Your task to perform on an android device: Open Youtube and go to the subscriptions tab Image 0: 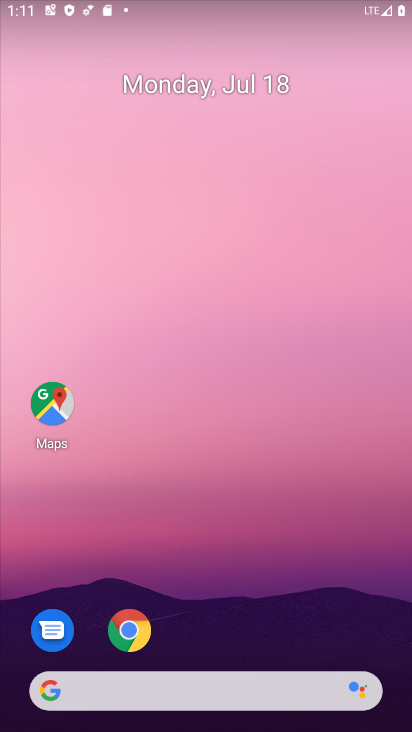
Step 0: drag from (269, 585) to (274, 47)
Your task to perform on an android device: Open Youtube and go to the subscriptions tab Image 1: 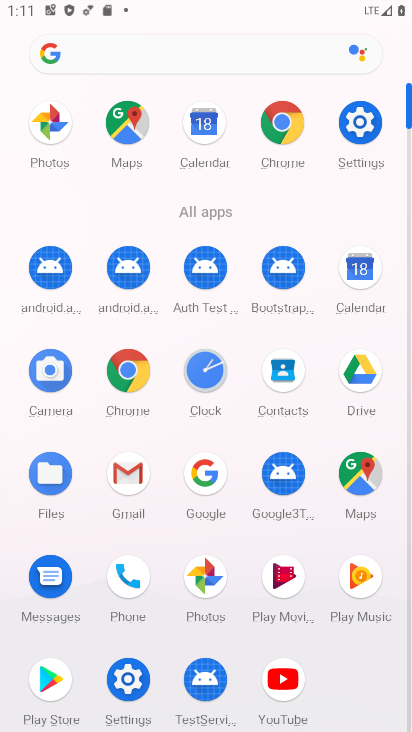
Step 1: click (290, 675)
Your task to perform on an android device: Open Youtube and go to the subscriptions tab Image 2: 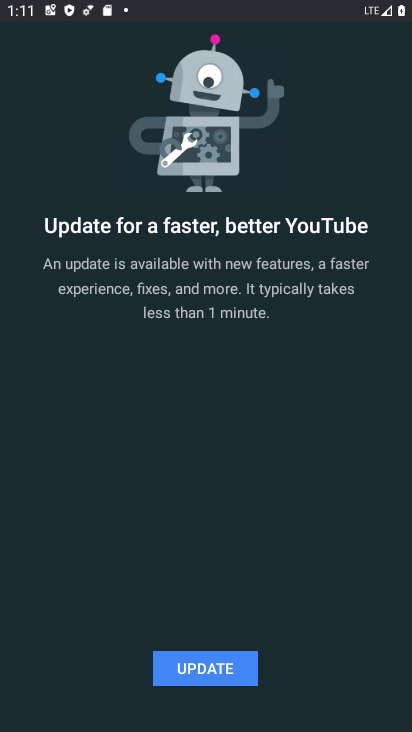
Step 2: click (254, 669)
Your task to perform on an android device: Open Youtube and go to the subscriptions tab Image 3: 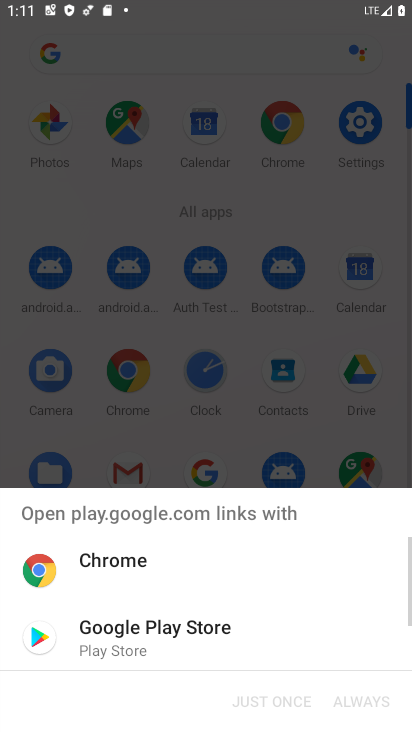
Step 3: click (167, 633)
Your task to perform on an android device: Open Youtube and go to the subscriptions tab Image 4: 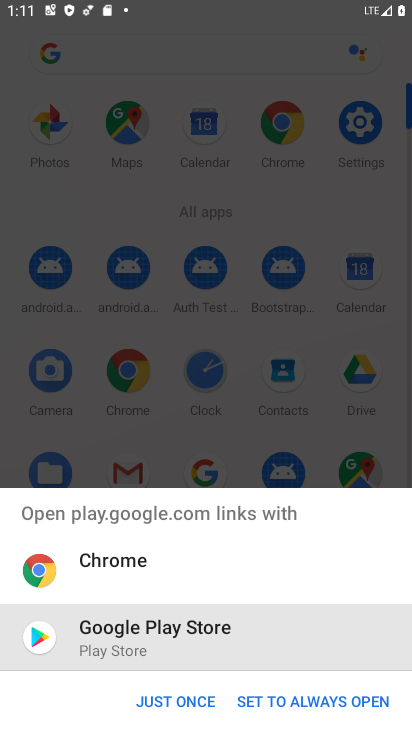
Step 4: click (197, 695)
Your task to perform on an android device: Open Youtube and go to the subscriptions tab Image 5: 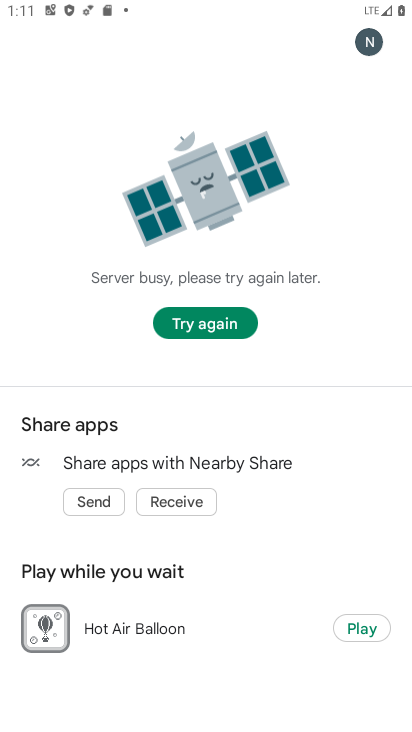
Step 5: click (233, 316)
Your task to perform on an android device: Open Youtube and go to the subscriptions tab Image 6: 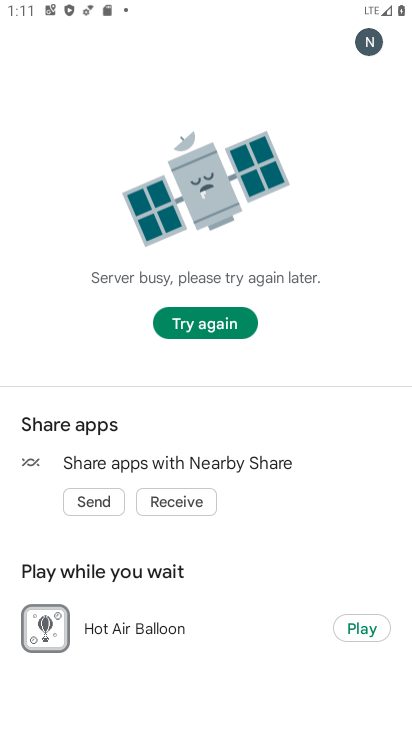
Step 6: click (248, 330)
Your task to perform on an android device: Open Youtube and go to the subscriptions tab Image 7: 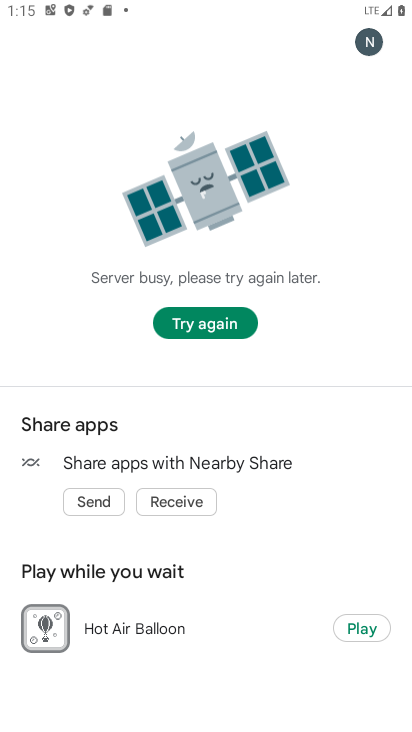
Step 7: task complete